Your task to perform on an android device: Is it going to rain tomorrow? Image 0: 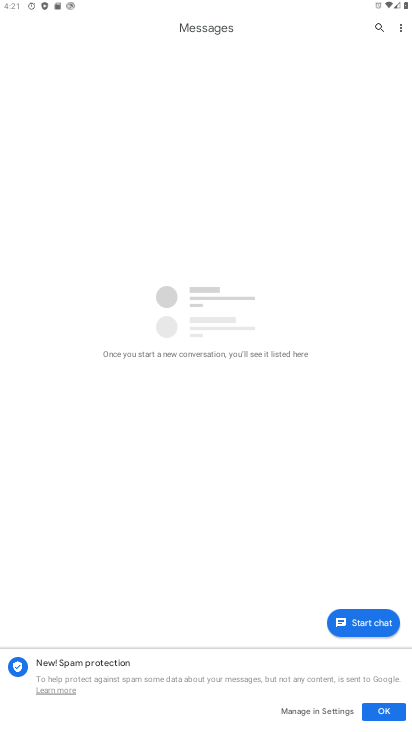
Step 0: press home button
Your task to perform on an android device: Is it going to rain tomorrow? Image 1: 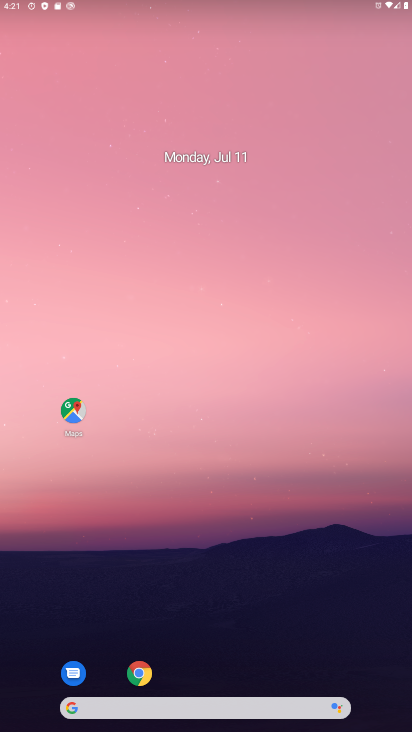
Step 1: drag from (265, 655) to (384, 25)
Your task to perform on an android device: Is it going to rain tomorrow? Image 2: 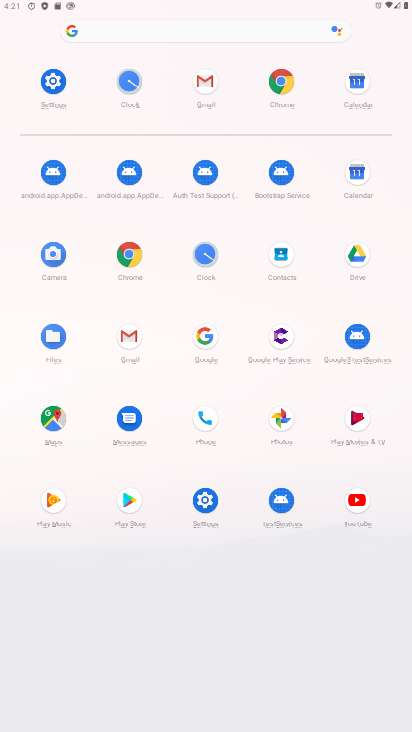
Step 2: drag from (221, 6) to (238, 283)
Your task to perform on an android device: Is it going to rain tomorrow? Image 3: 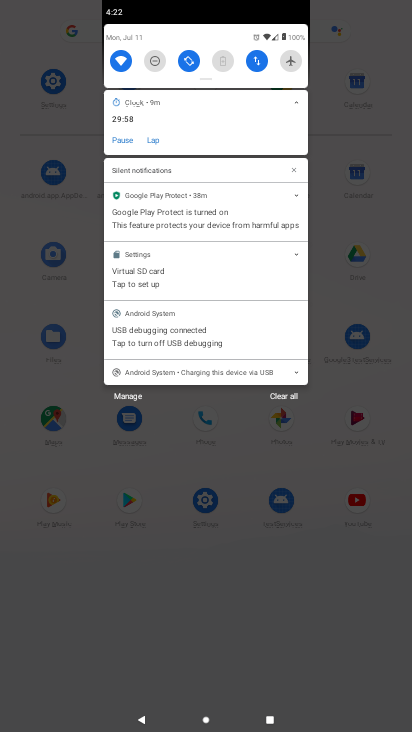
Step 3: drag from (217, 79) to (227, 289)
Your task to perform on an android device: Is it going to rain tomorrow? Image 4: 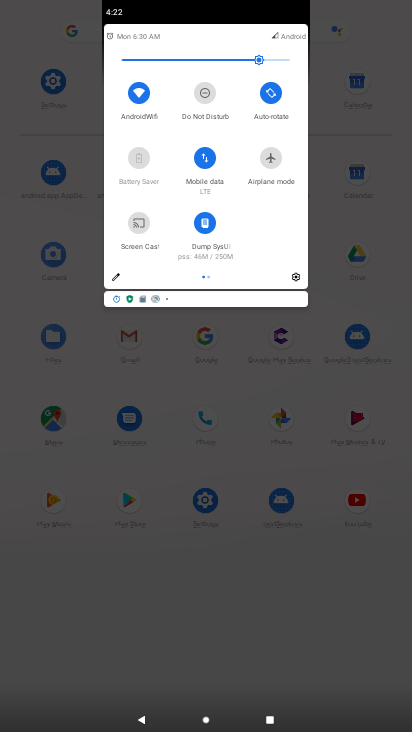
Step 4: click (386, 301)
Your task to perform on an android device: Is it going to rain tomorrow? Image 5: 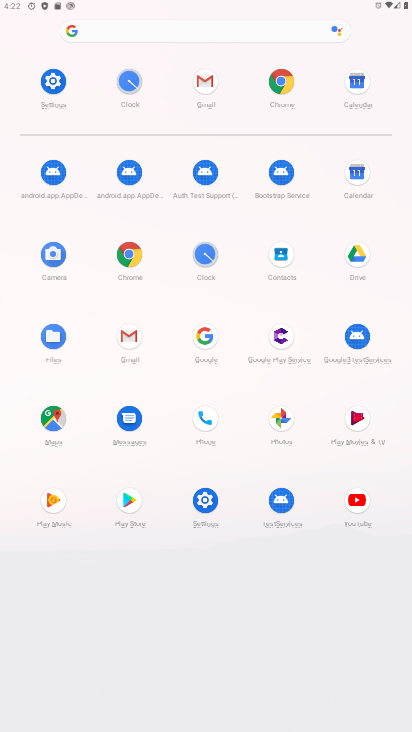
Step 5: click (128, 260)
Your task to perform on an android device: Is it going to rain tomorrow? Image 6: 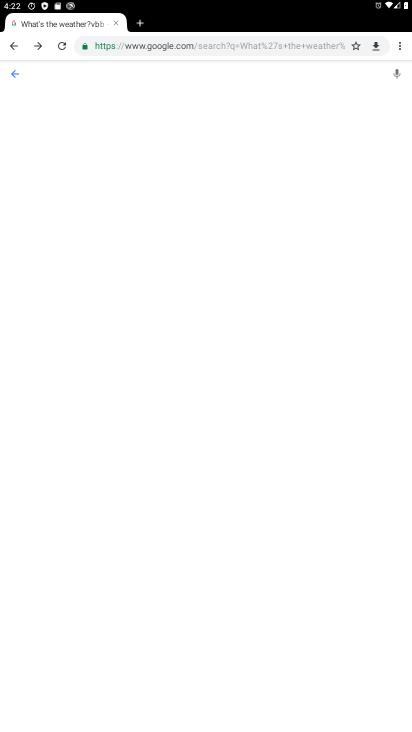
Step 6: click (175, 43)
Your task to perform on an android device: Is it going to rain tomorrow? Image 7: 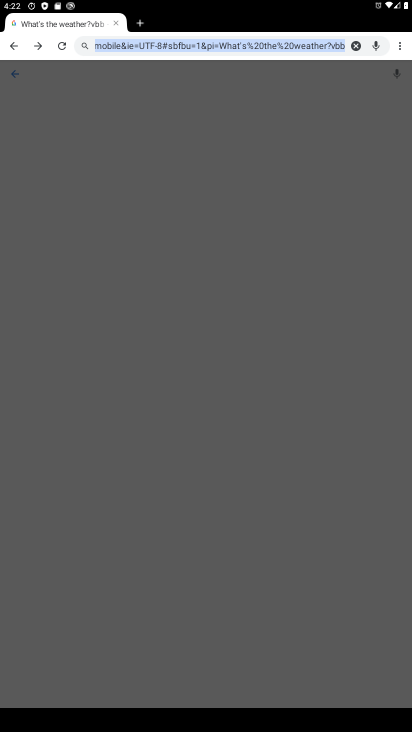
Step 7: click (356, 46)
Your task to perform on an android device: Is it going to rain tomorrow? Image 8: 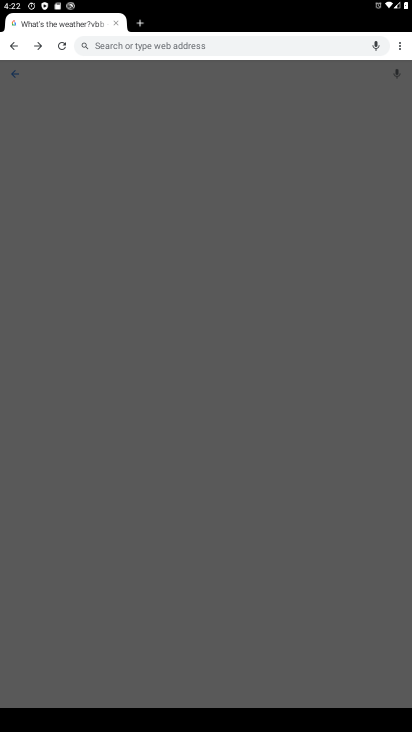
Step 8: type "Is it going to rain tomorrow?"
Your task to perform on an android device: Is it going to rain tomorrow? Image 9: 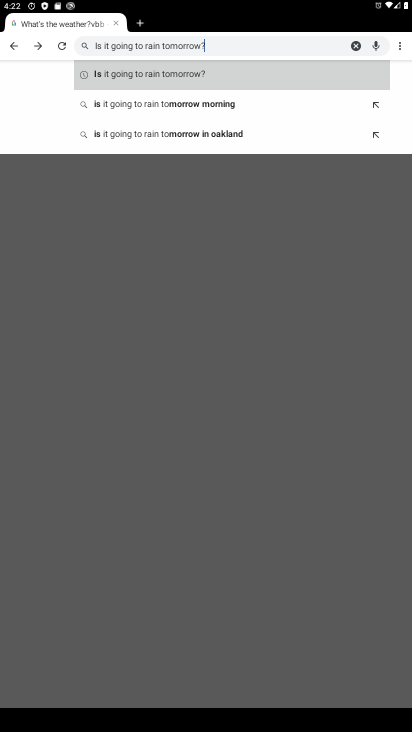
Step 9: click (140, 71)
Your task to perform on an android device: Is it going to rain tomorrow? Image 10: 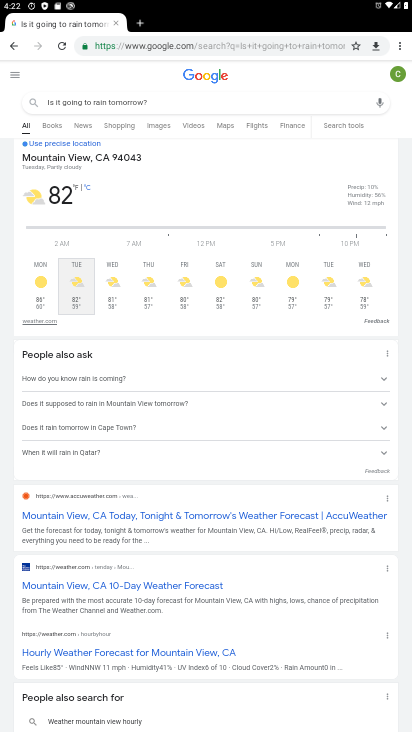
Step 10: task complete